Your task to perform on an android device: What's the weather going to be tomorrow? Image 0: 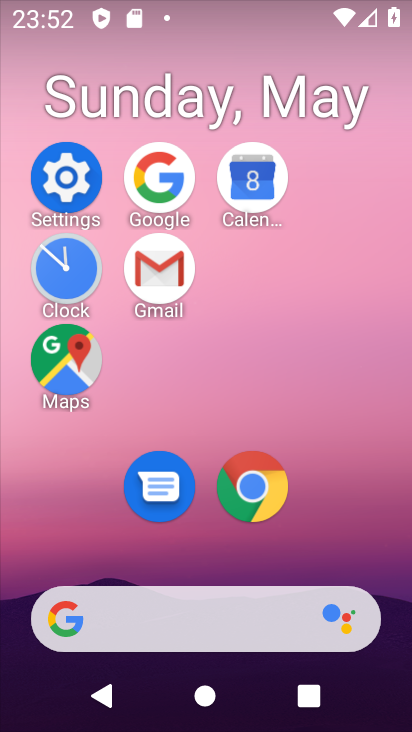
Step 0: click (175, 187)
Your task to perform on an android device: What's the weather going to be tomorrow? Image 1: 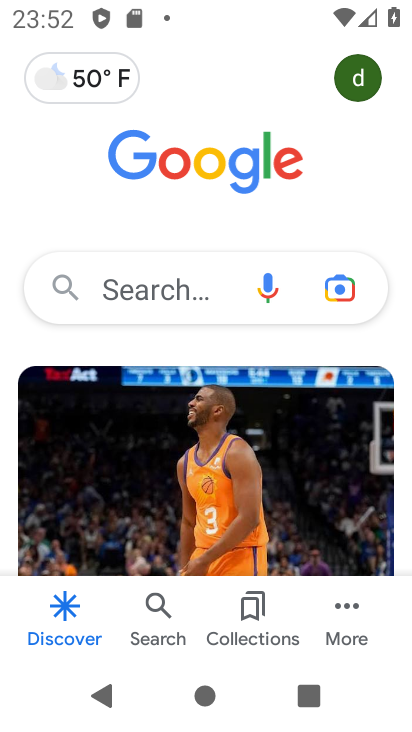
Step 1: click (70, 83)
Your task to perform on an android device: What's the weather going to be tomorrow? Image 2: 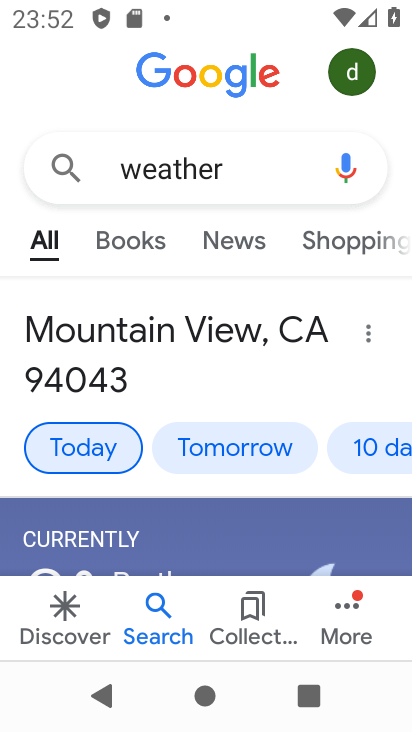
Step 2: task complete